Your task to perform on an android device: What is the recent news? Image 0: 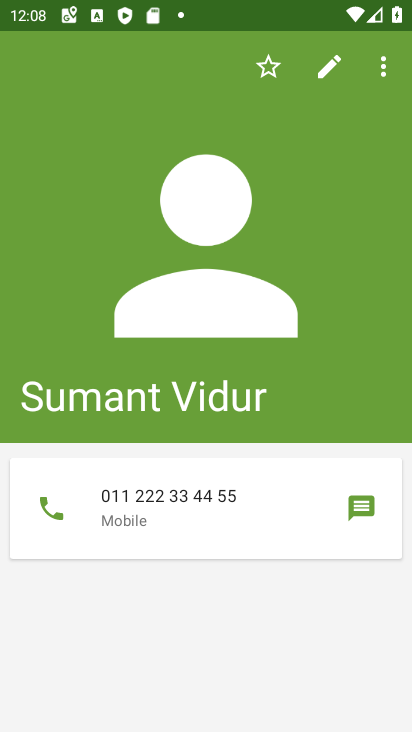
Step 0: press home button
Your task to perform on an android device: What is the recent news? Image 1: 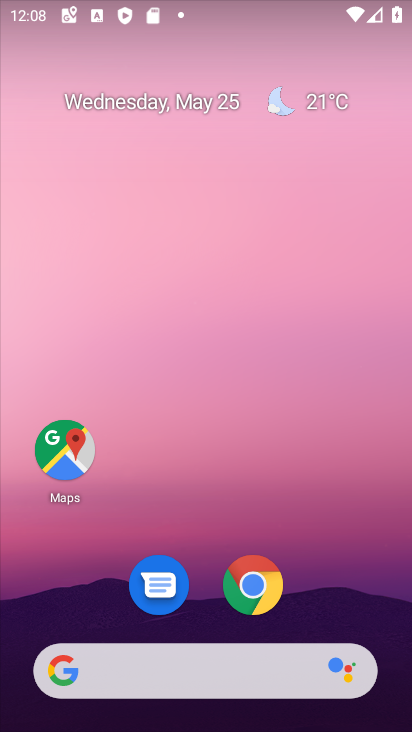
Step 1: click (281, 674)
Your task to perform on an android device: What is the recent news? Image 2: 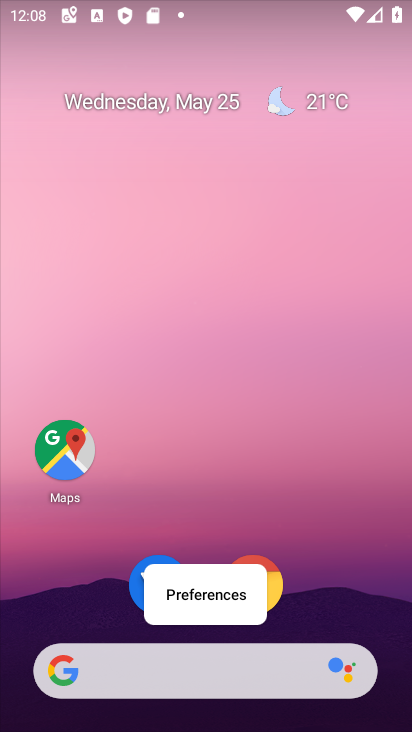
Step 2: click (176, 678)
Your task to perform on an android device: What is the recent news? Image 3: 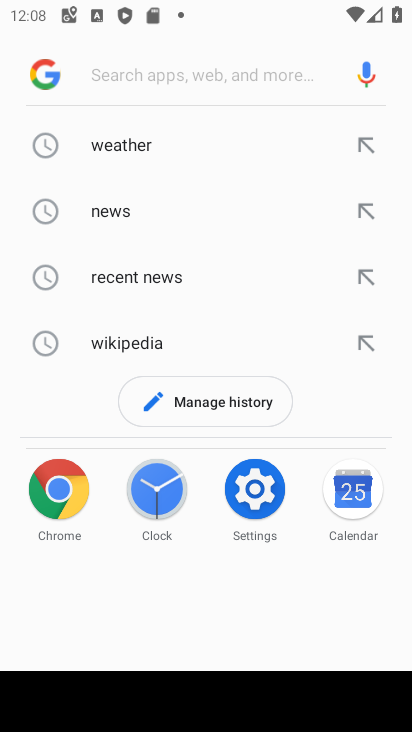
Step 3: click (137, 271)
Your task to perform on an android device: What is the recent news? Image 4: 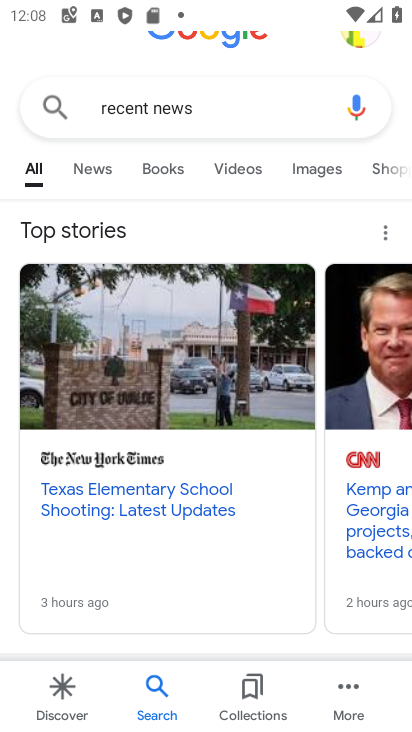
Step 4: task complete